Your task to perform on an android device: uninstall "Microsoft Outlook" Image 0: 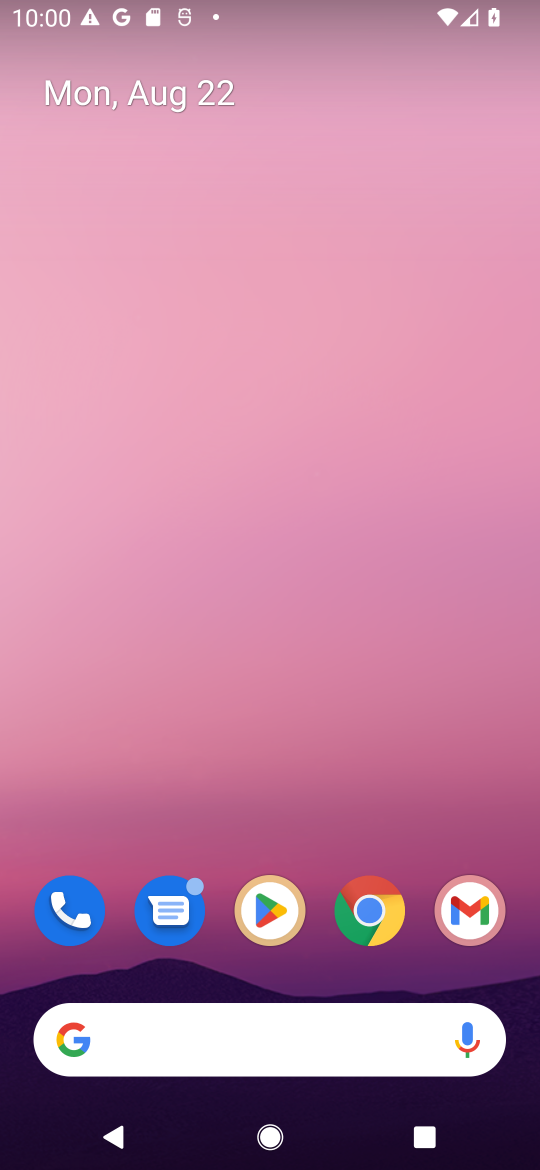
Step 0: click (272, 924)
Your task to perform on an android device: uninstall "Microsoft Outlook" Image 1: 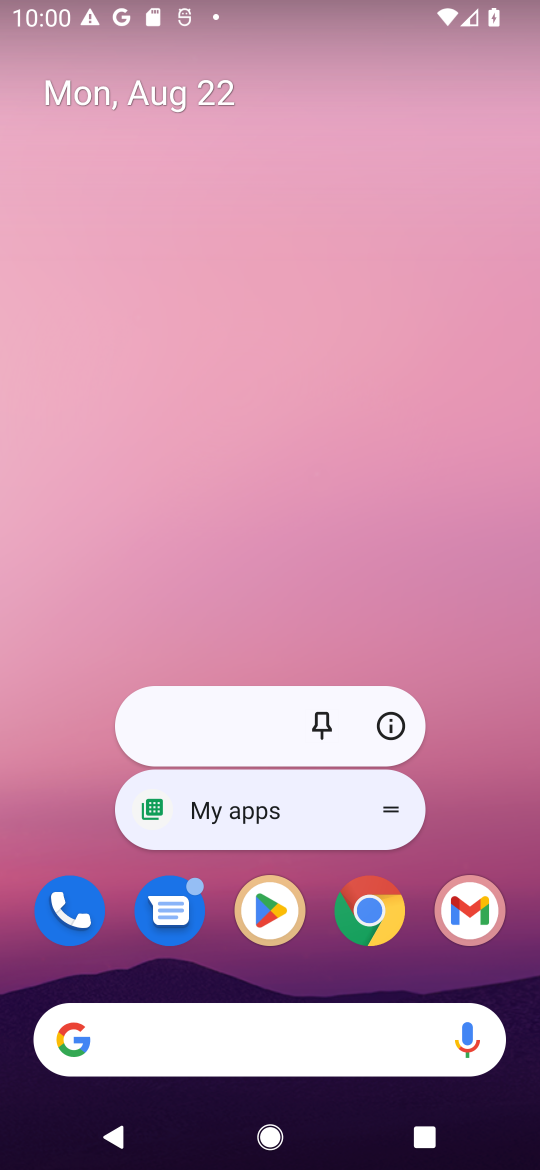
Step 1: click (267, 886)
Your task to perform on an android device: uninstall "Microsoft Outlook" Image 2: 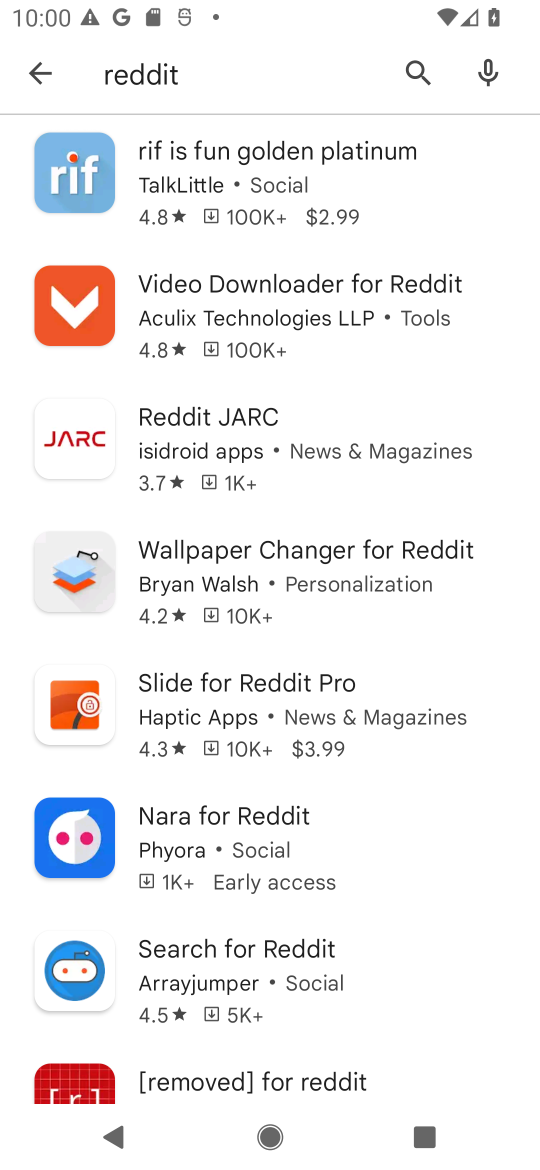
Step 2: click (415, 69)
Your task to perform on an android device: uninstall "Microsoft Outlook" Image 3: 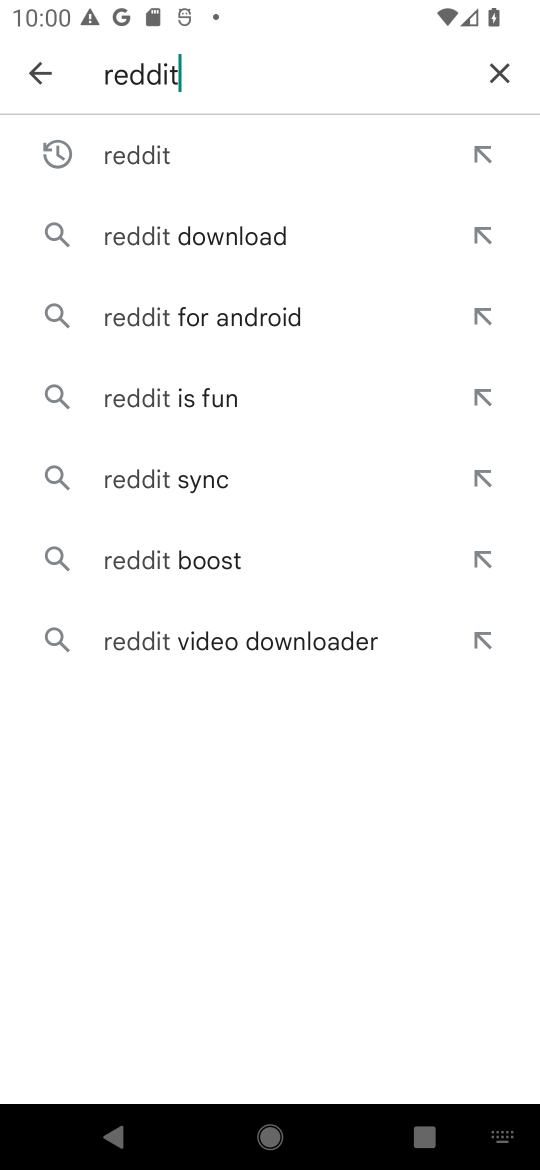
Step 3: click (490, 59)
Your task to perform on an android device: uninstall "Microsoft Outlook" Image 4: 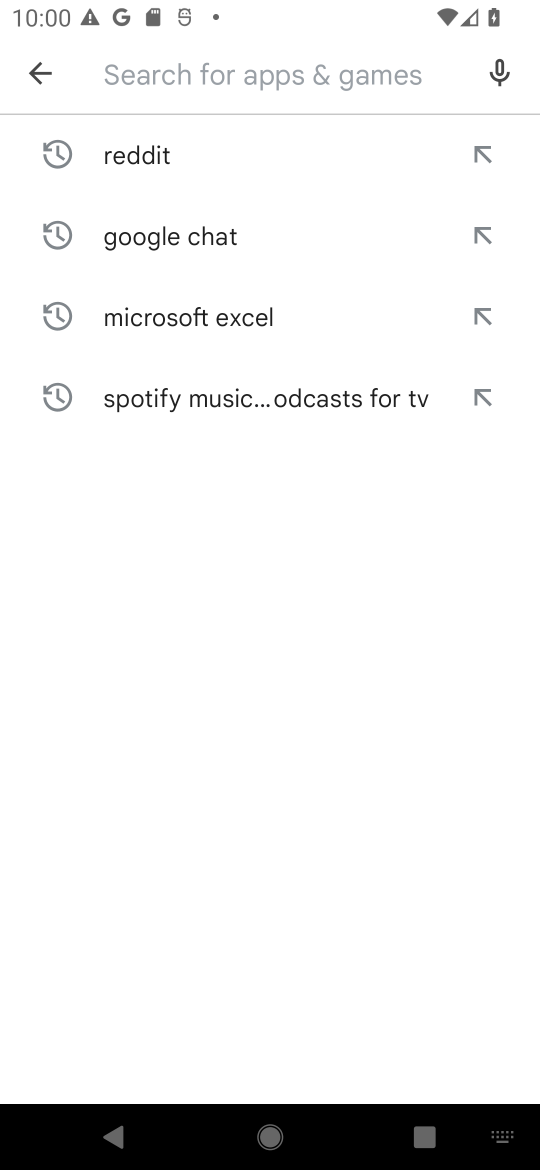
Step 4: type "Microsoft Outlook"
Your task to perform on an android device: uninstall "Microsoft Outlook" Image 5: 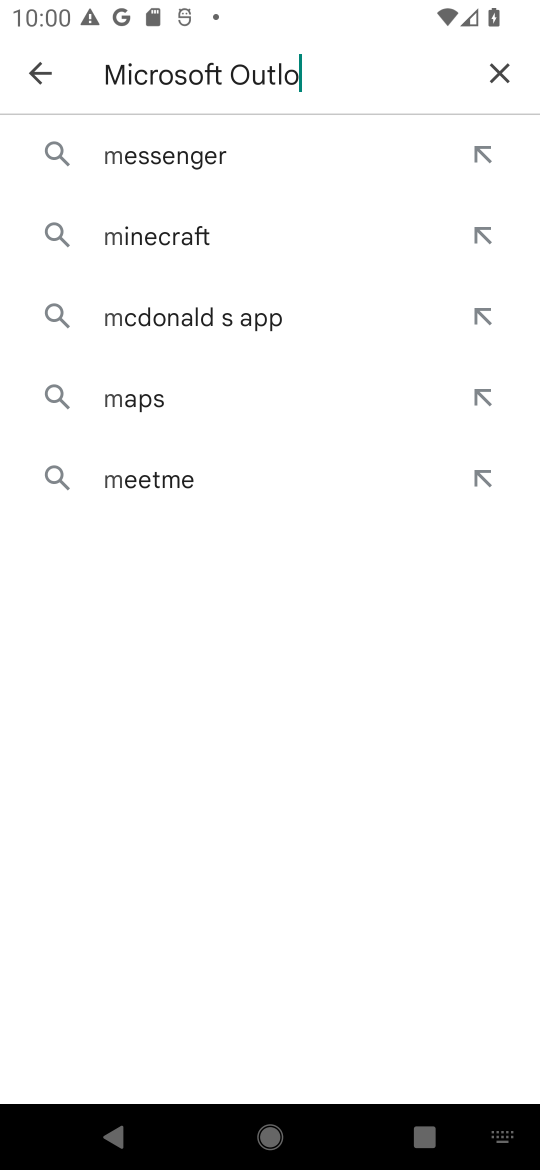
Step 5: type ""
Your task to perform on an android device: uninstall "Microsoft Outlook" Image 6: 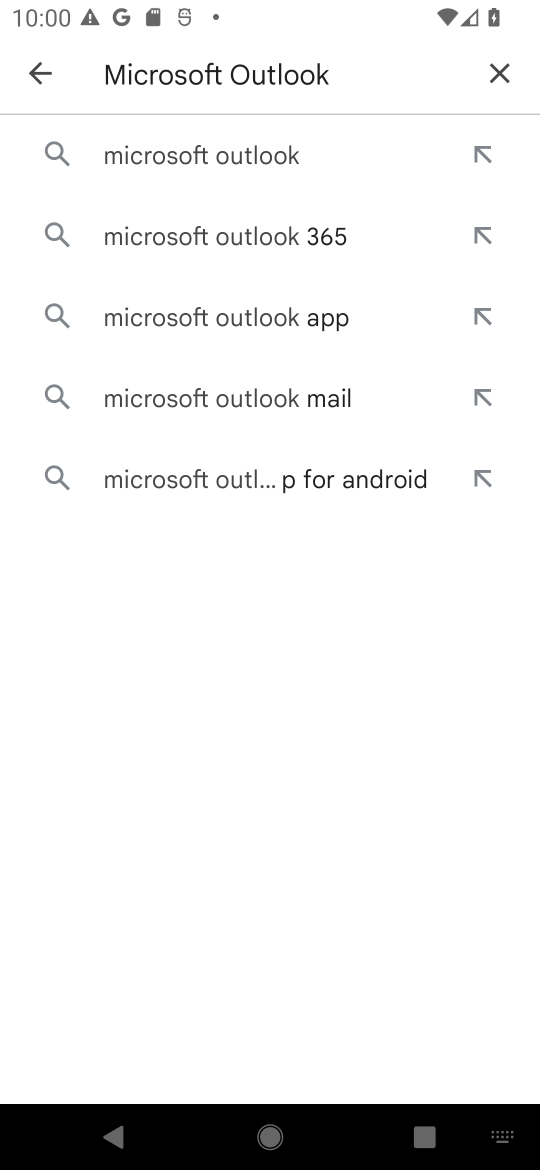
Step 6: click (224, 152)
Your task to perform on an android device: uninstall "Microsoft Outlook" Image 7: 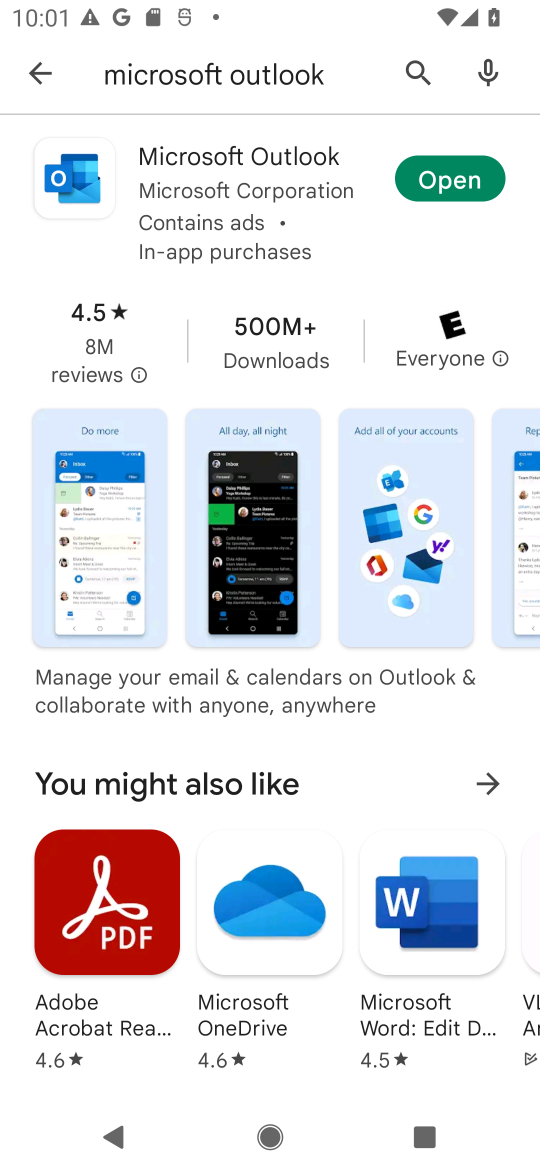
Step 7: click (188, 187)
Your task to perform on an android device: uninstall "Microsoft Outlook" Image 8: 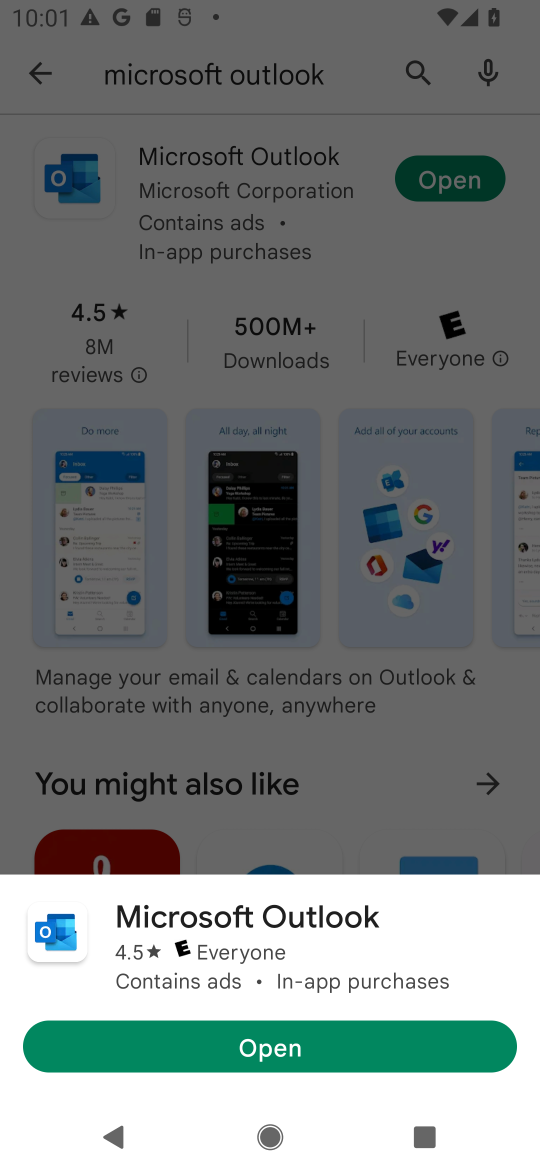
Step 8: click (187, 161)
Your task to perform on an android device: uninstall "Microsoft Outlook" Image 9: 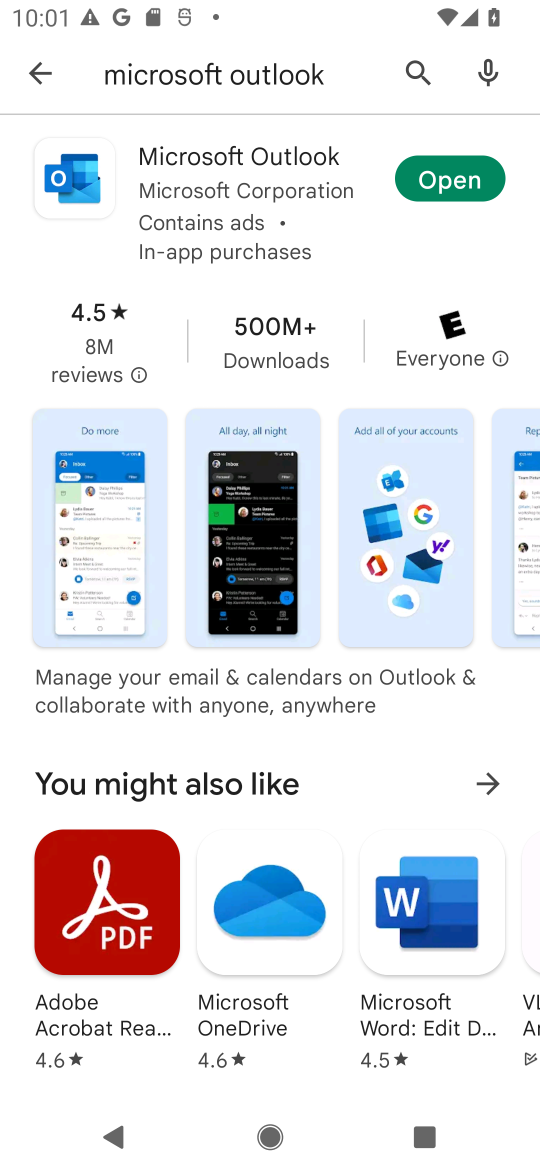
Step 9: click (197, 193)
Your task to perform on an android device: uninstall "Microsoft Outlook" Image 10: 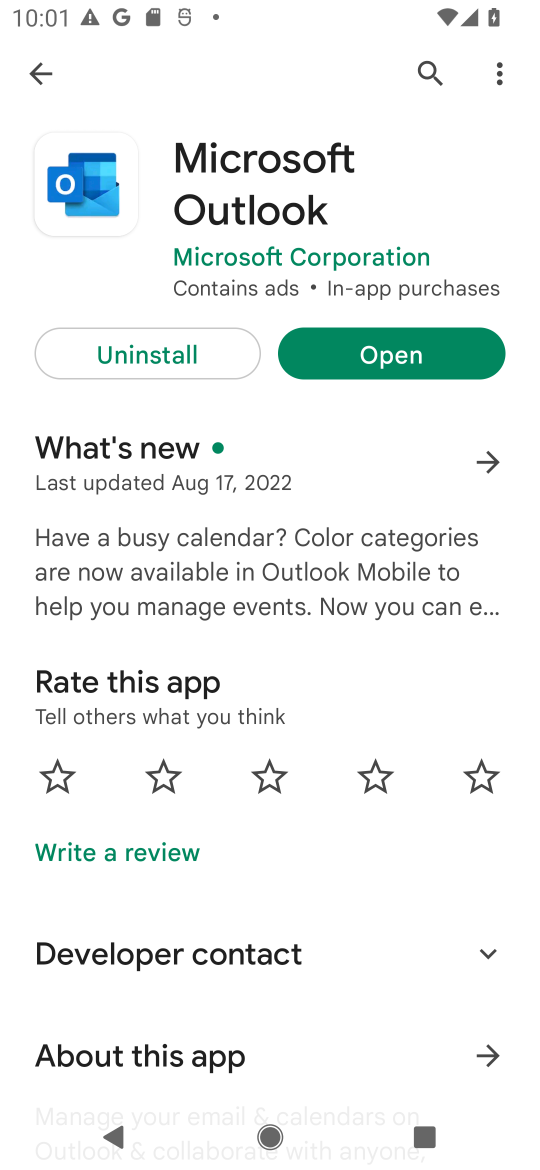
Step 10: click (155, 342)
Your task to perform on an android device: uninstall "Microsoft Outlook" Image 11: 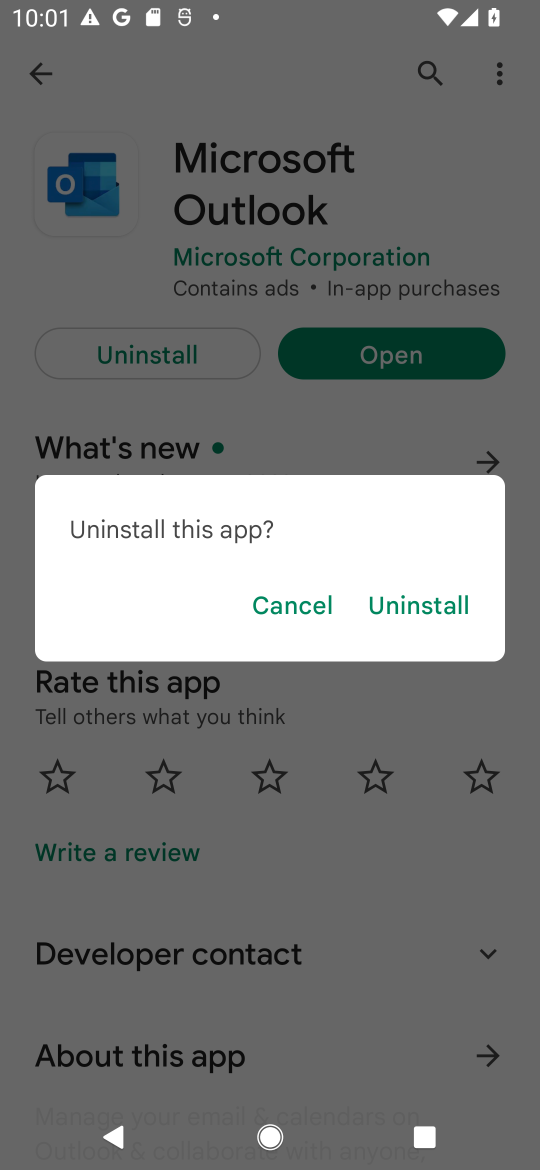
Step 11: click (391, 592)
Your task to perform on an android device: uninstall "Microsoft Outlook" Image 12: 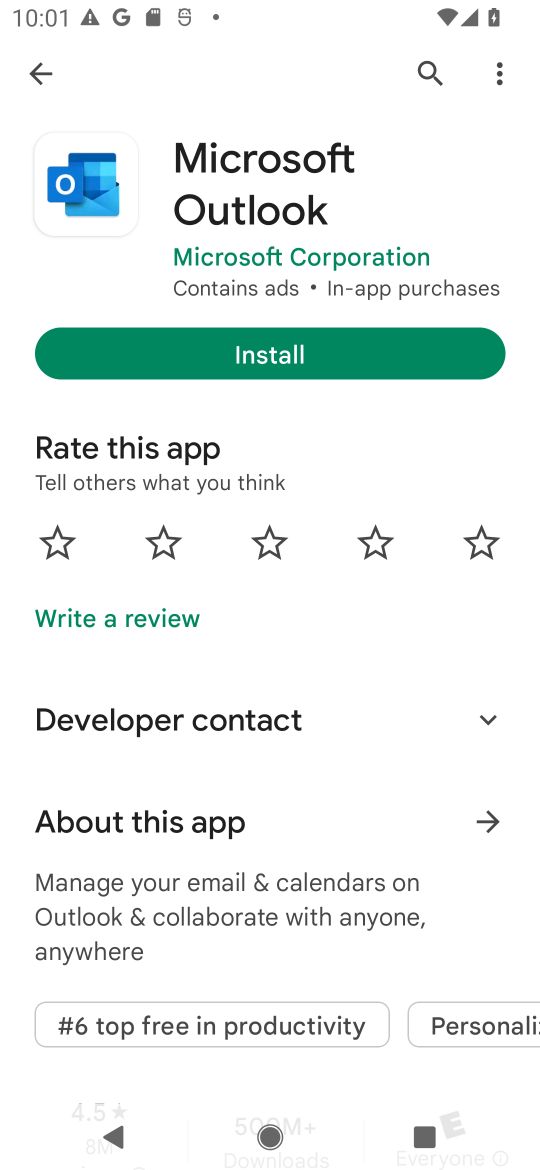
Step 12: task complete